Your task to perform on an android device: What's the weather going to be this weekend? Image 0: 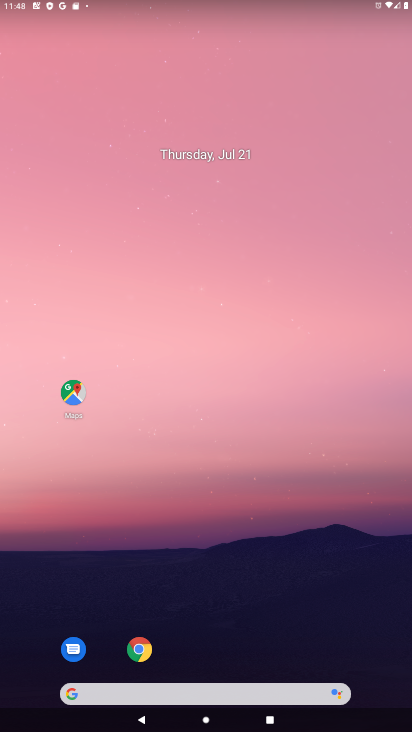
Step 0: drag from (293, 620) to (255, 142)
Your task to perform on an android device: What's the weather going to be this weekend? Image 1: 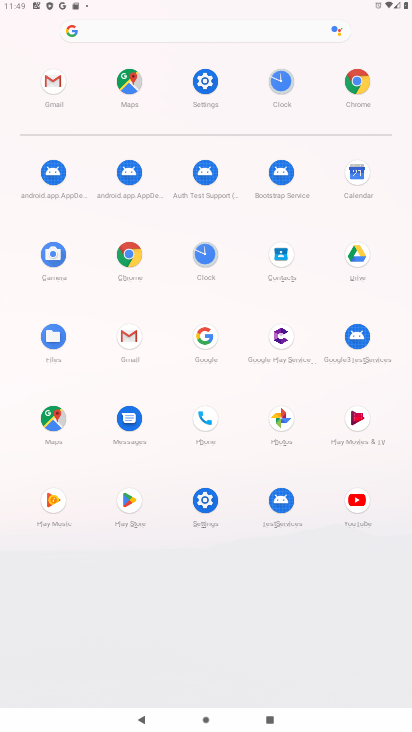
Step 1: click (130, 253)
Your task to perform on an android device: What's the weather going to be this weekend? Image 2: 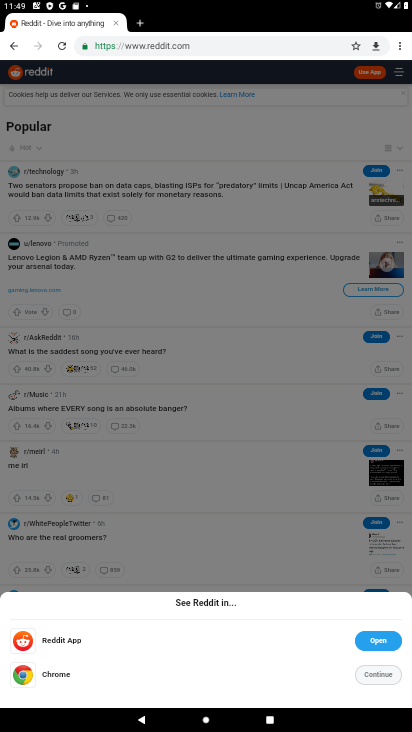
Step 2: click (299, 45)
Your task to perform on an android device: What's the weather going to be this weekend? Image 3: 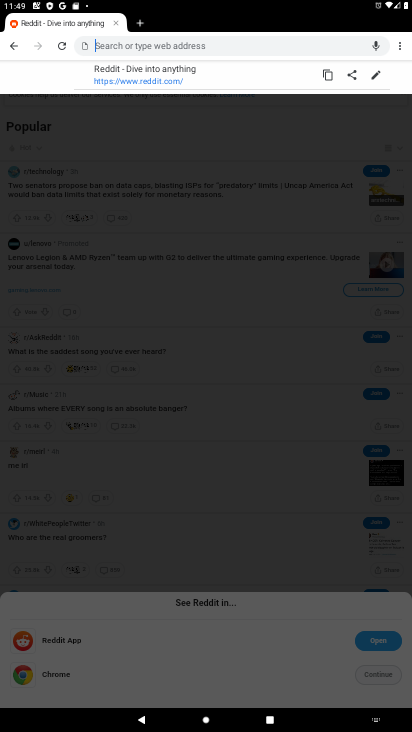
Step 3: type "weather"
Your task to perform on an android device: What's the weather going to be this weekend? Image 4: 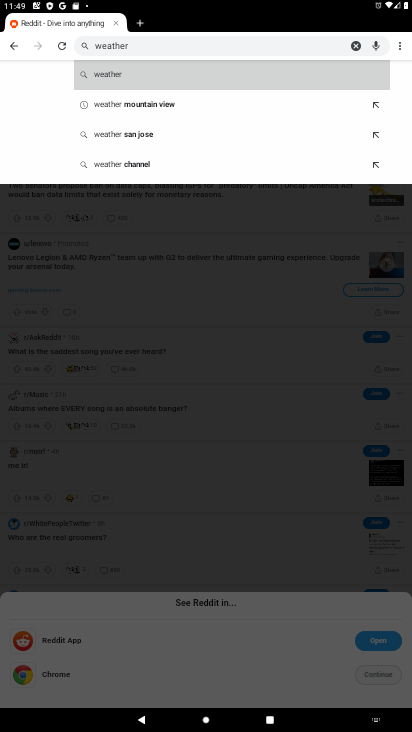
Step 4: click (167, 78)
Your task to perform on an android device: What's the weather going to be this weekend? Image 5: 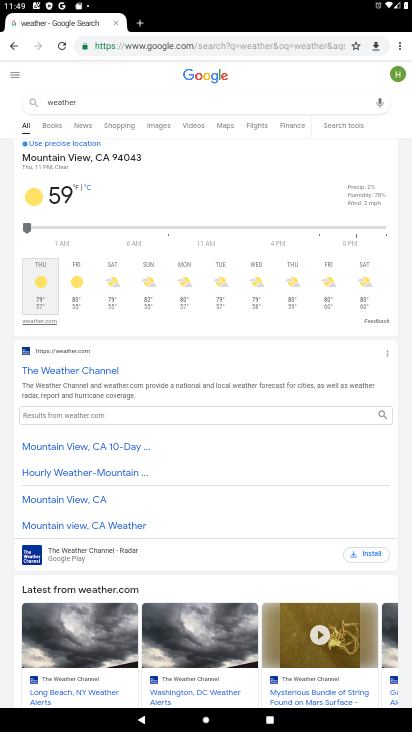
Step 5: click (160, 285)
Your task to perform on an android device: What's the weather going to be this weekend? Image 6: 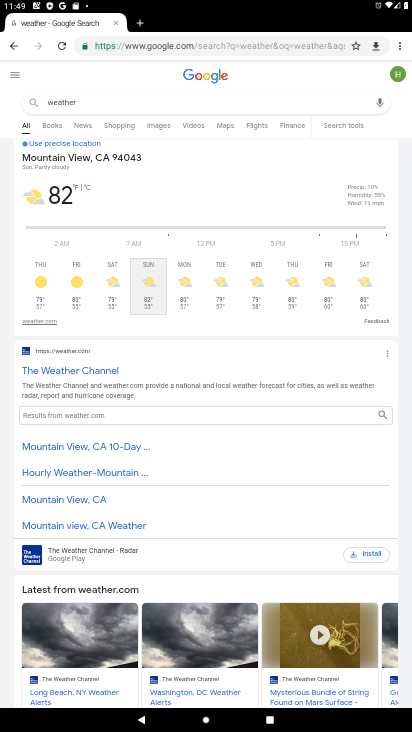
Step 6: task complete